Your task to perform on an android device: toggle wifi Image 0: 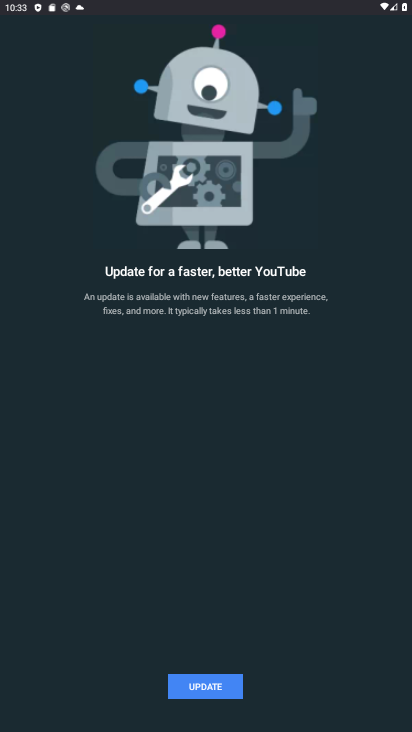
Step 0: task complete